Your task to perform on an android device: turn on notifications settings in the gmail app Image 0: 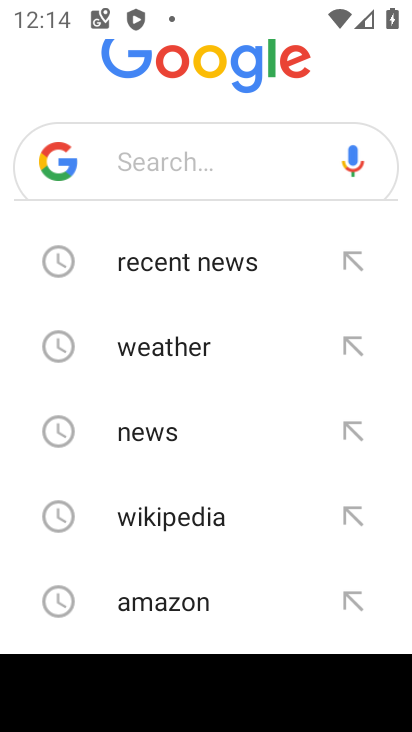
Step 0: press home button
Your task to perform on an android device: turn on notifications settings in the gmail app Image 1: 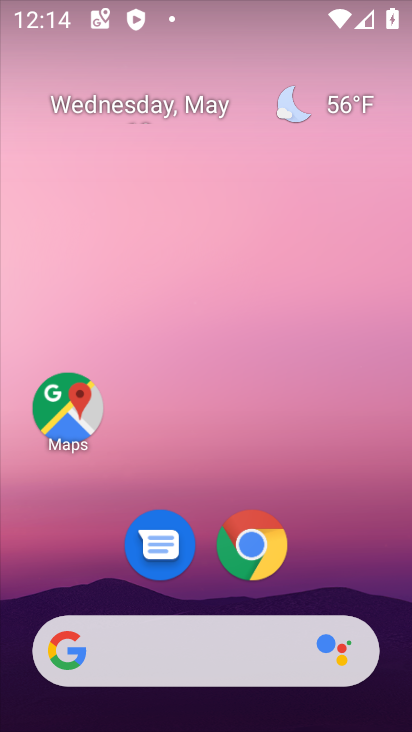
Step 1: drag from (291, 666) to (374, 297)
Your task to perform on an android device: turn on notifications settings in the gmail app Image 2: 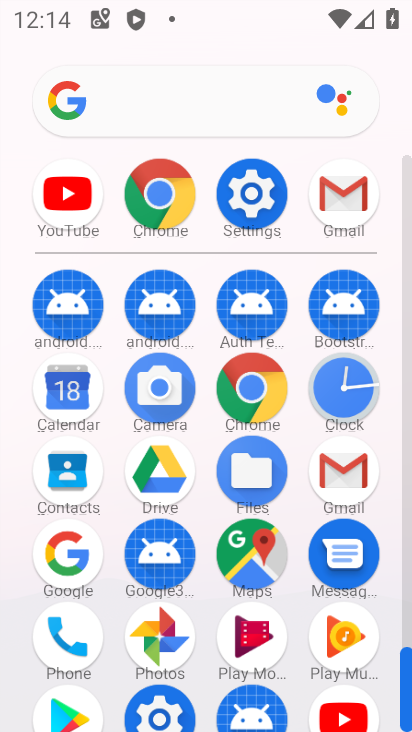
Step 2: click (342, 479)
Your task to perform on an android device: turn on notifications settings in the gmail app Image 3: 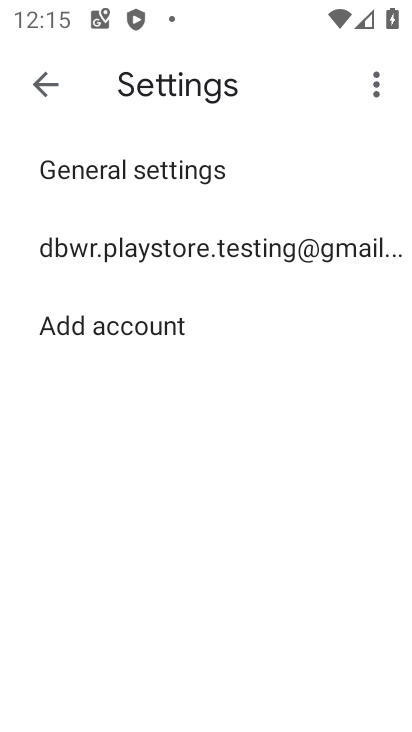
Step 3: click (175, 184)
Your task to perform on an android device: turn on notifications settings in the gmail app Image 4: 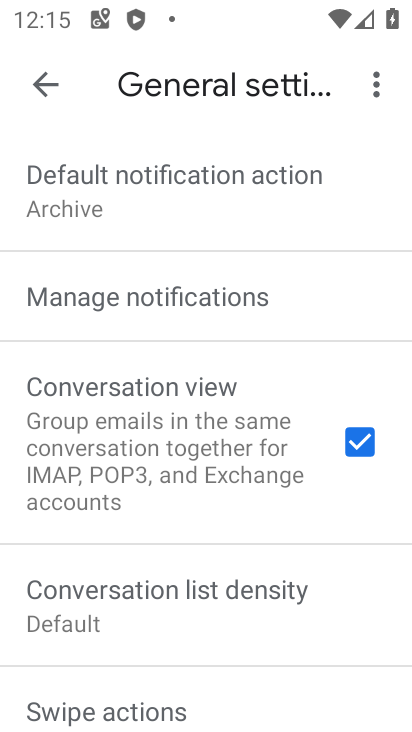
Step 4: click (163, 312)
Your task to perform on an android device: turn on notifications settings in the gmail app Image 5: 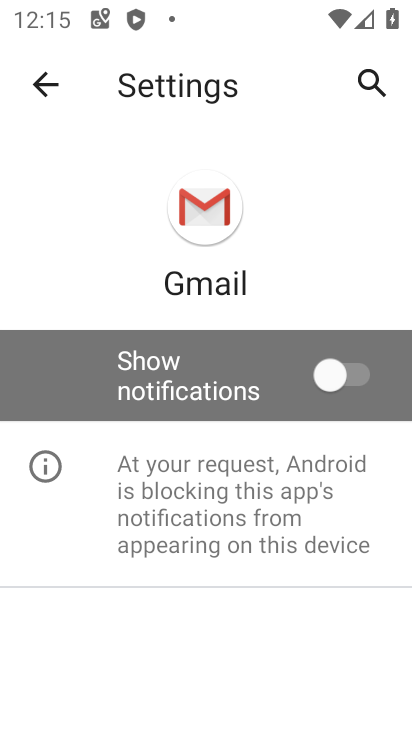
Step 5: click (180, 390)
Your task to perform on an android device: turn on notifications settings in the gmail app Image 6: 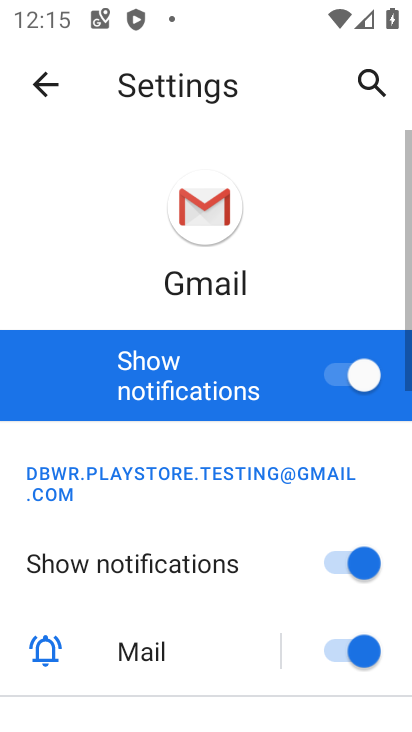
Step 6: task complete